Your task to perform on an android device: Search for sushi restaurants on Maps Image 0: 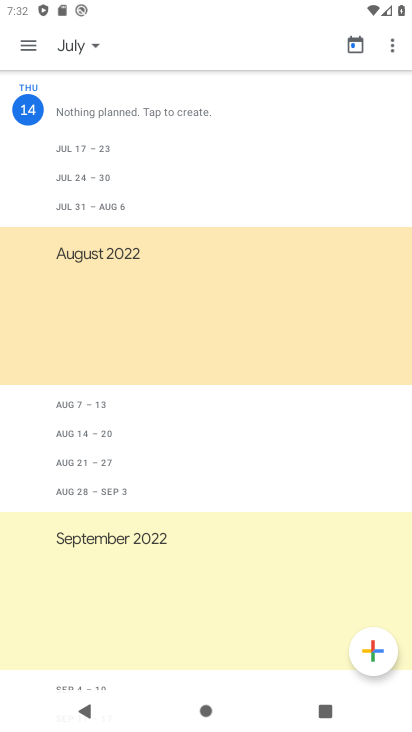
Step 0: press home button
Your task to perform on an android device: Search for sushi restaurants on Maps Image 1: 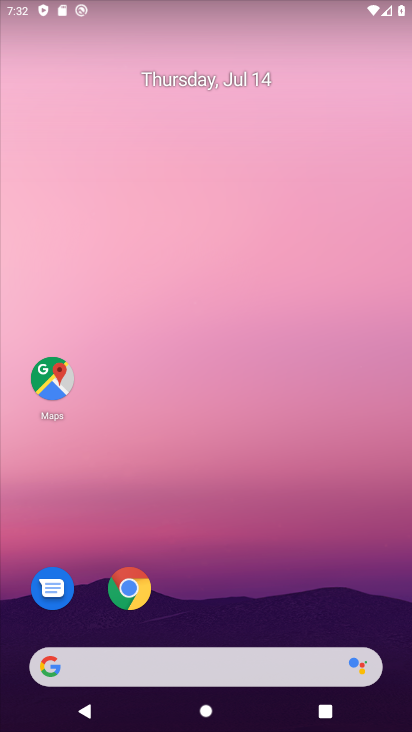
Step 1: click (112, 671)
Your task to perform on an android device: Search for sushi restaurants on Maps Image 2: 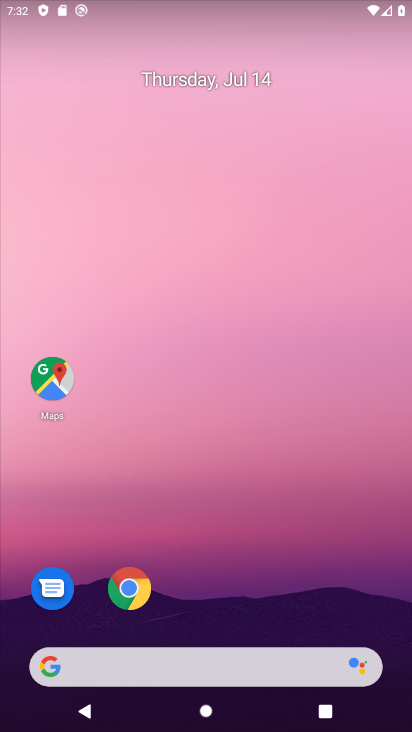
Step 2: click (87, 668)
Your task to perform on an android device: Search for sushi restaurants on Maps Image 3: 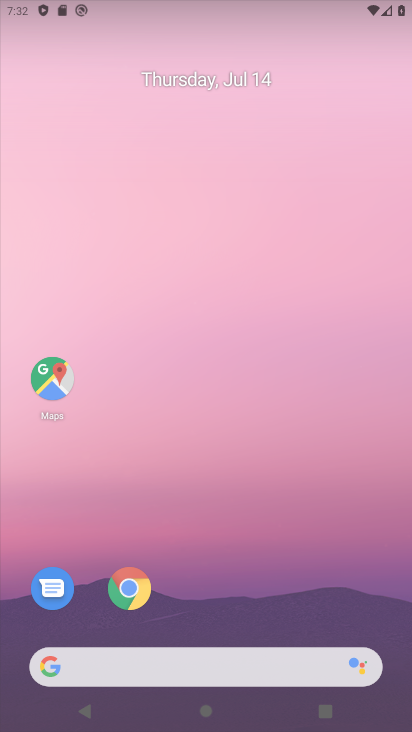
Step 3: click (113, 670)
Your task to perform on an android device: Search for sushi restaurants on Maps Image 4: 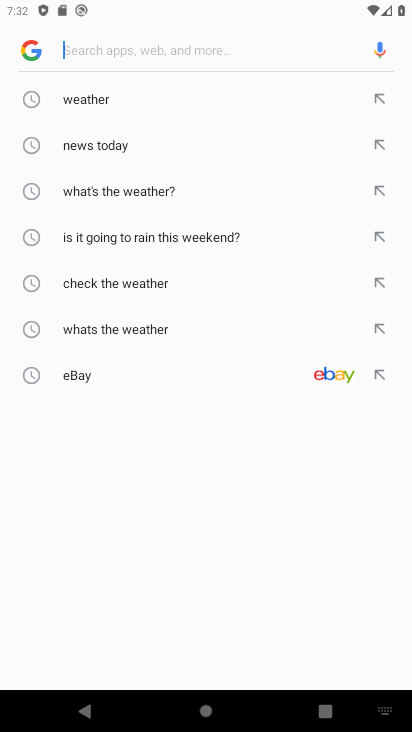
Step 4: press home button
Your task to perform on an android device: Search for sushi restaurants on Maps Image 5: 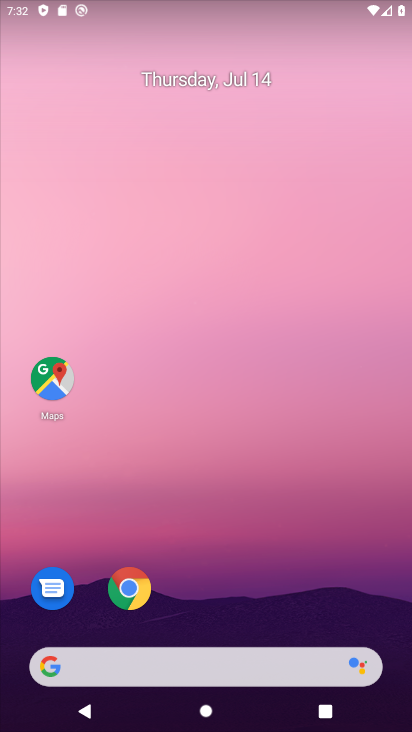
Step 5: click (55, 383)
Your task to perform on an android device: Search for sushi restaurants on Maps Image 6: 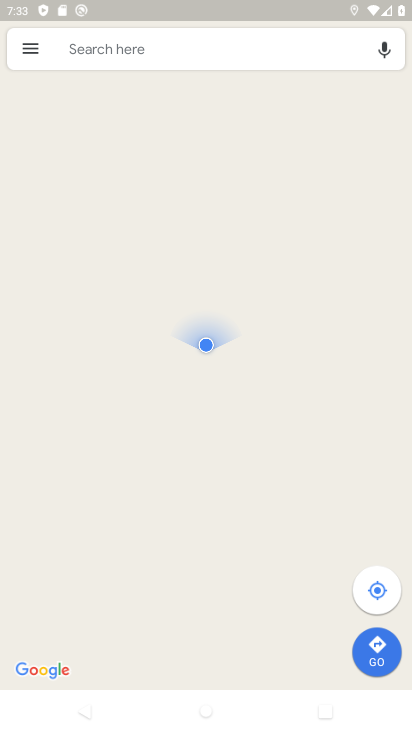
Step 6: click (54, 38)
Your task to perform on an android device: Search for sushi restaurants on Maps Image 7: 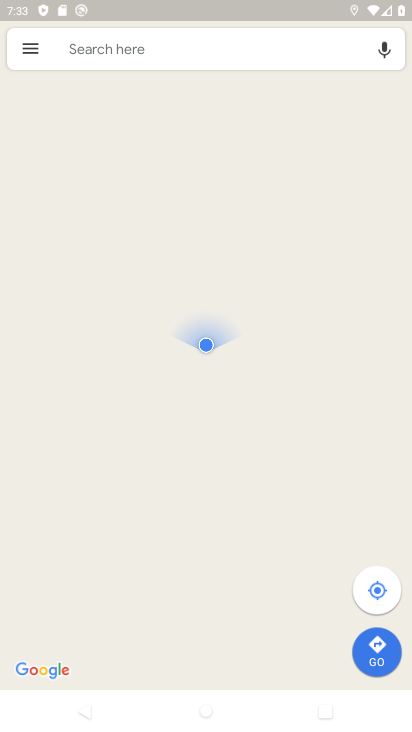
Step 7: click (93, 47)
Your task to perform on an android device: Search for sushi restaurants on Maps Image 8: 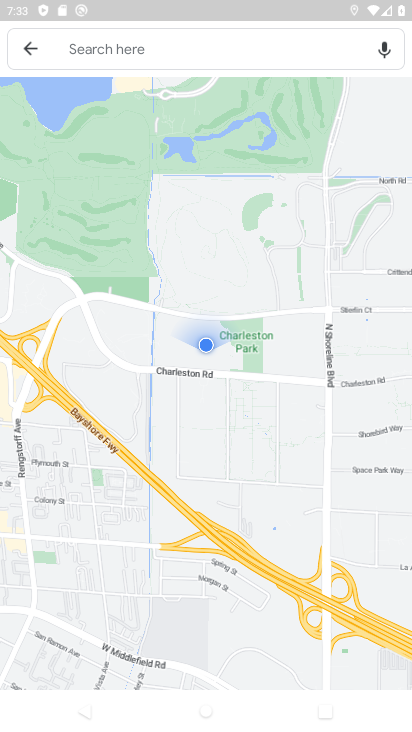
Step 8: click (120, 46)
Your task to perform on an android device: Search for sushi restaurants on Maps Image 9: 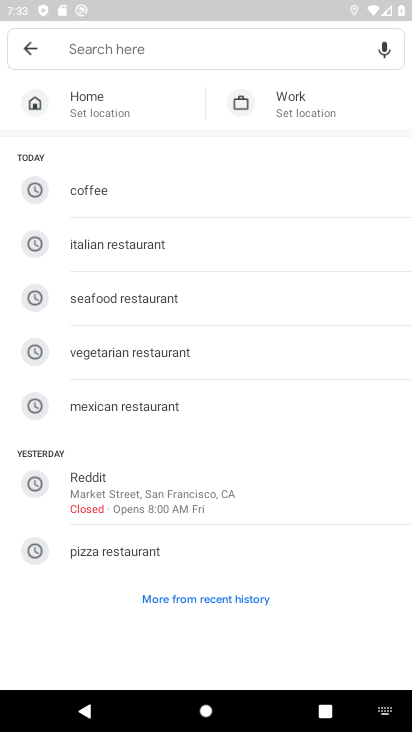
Step 9: type "sushi restaurants "
Your task to perform on an android device: Search for sushi restaurants on Maps Image 10: 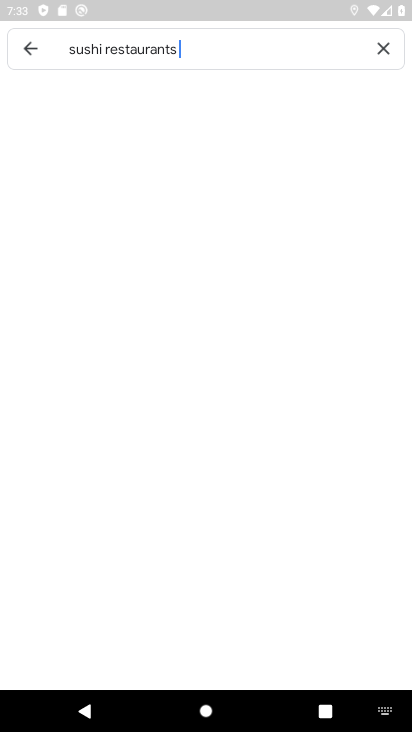
Step 10: type ""
Your task to perform on an android device: Search for sushi restaurants on Maps Image 11: 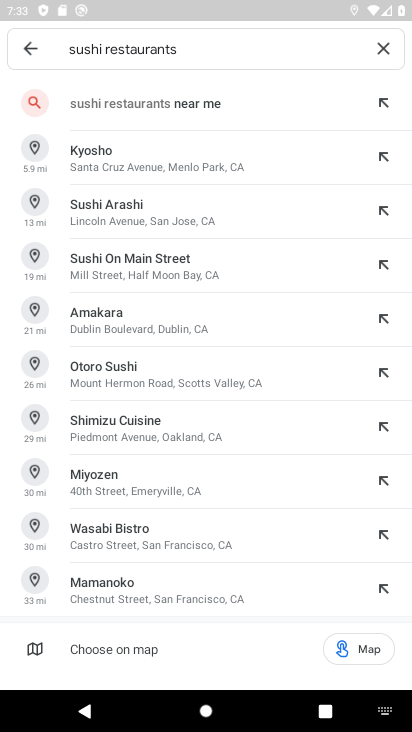
Step 11: type ""
Your task to perform on an android device: Search for sushi restaurants on Maps Image 12: 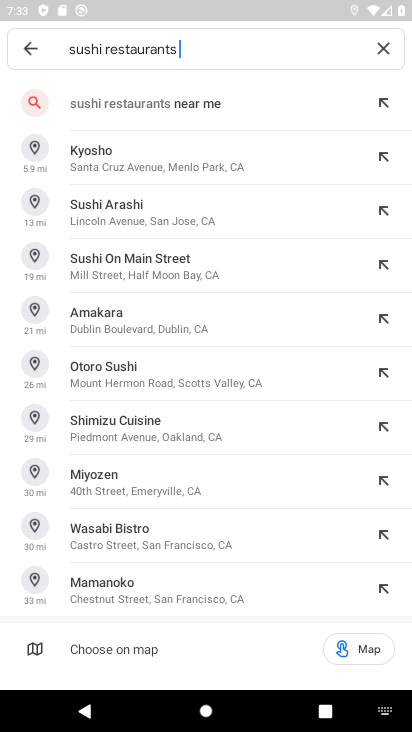
Step 12: type ""
Your task to perform on an android device: Search for sushi restaurants on Maps Image 13: 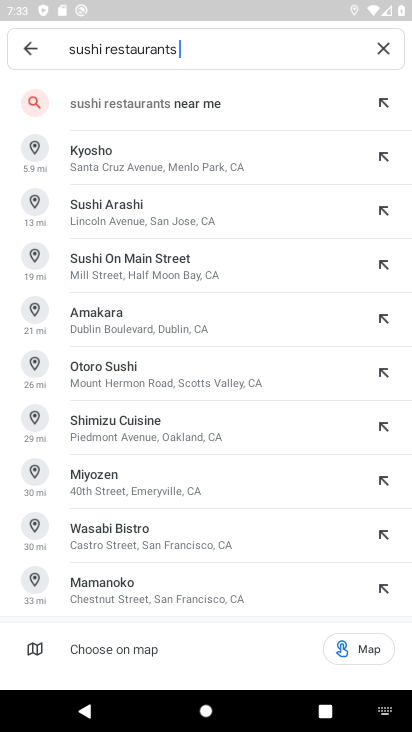
Step 13: task complete